Your task to perform on an android device: check the backup settings in the google photos Image 0: 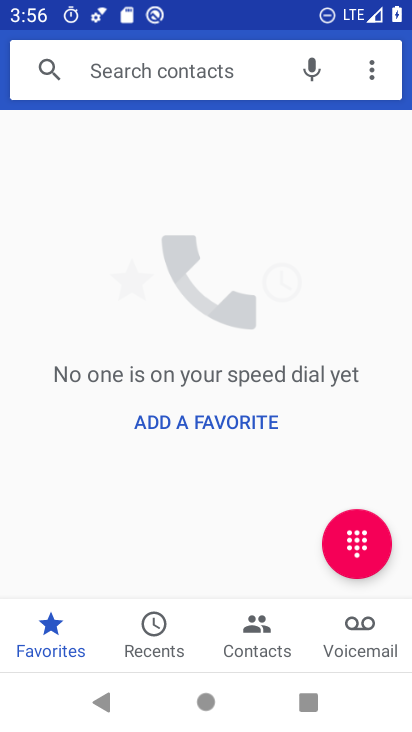
Step 0: press home button
Your task to perform on an android device: check the backup settings in the google photos Image 1: 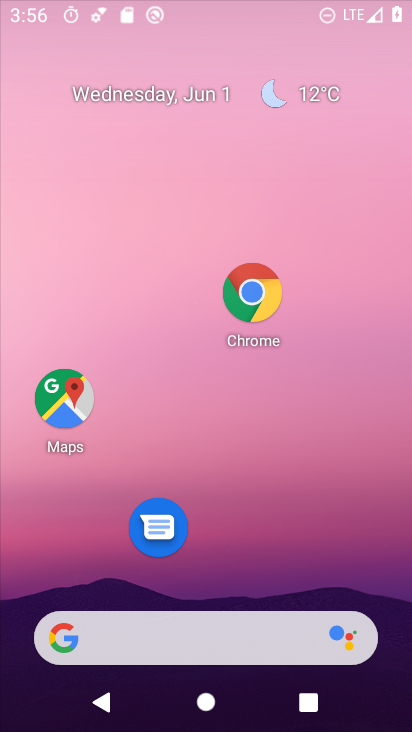
Step 1: drag from (215, 518) to (283, 2)
Your task to perform on an android device: check the backup settings in the google photos Image 2: 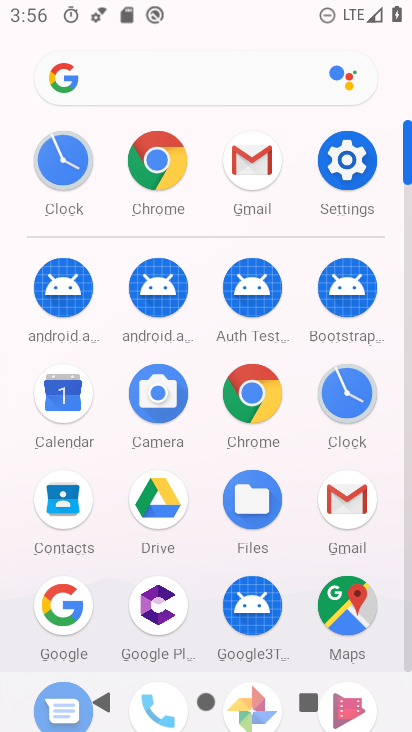
Step 2: drag from (258, 545) to (254, 138)
Your task to perform on an android device: check the backup settings in the google photos Image 3: 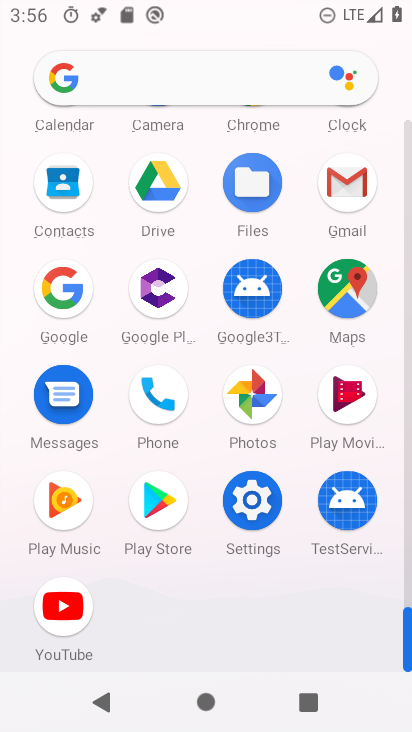
Step 3: click (261, 409)
Your task to perform on an android device: check the backup settings in the google photos Image 4: 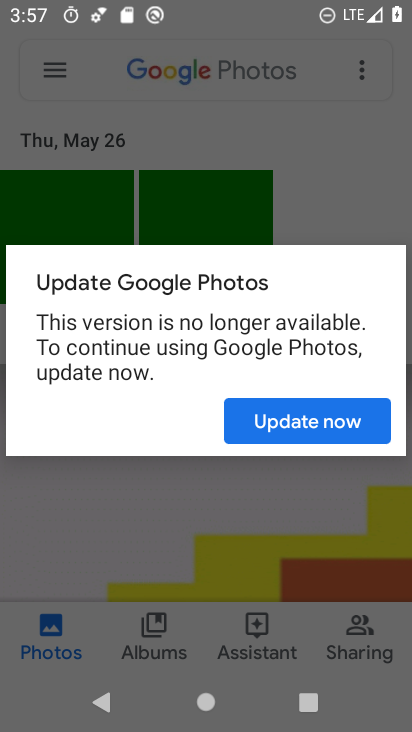
Step 4: task complete